Your task to perform on an android device: Open sound settings Image 0: 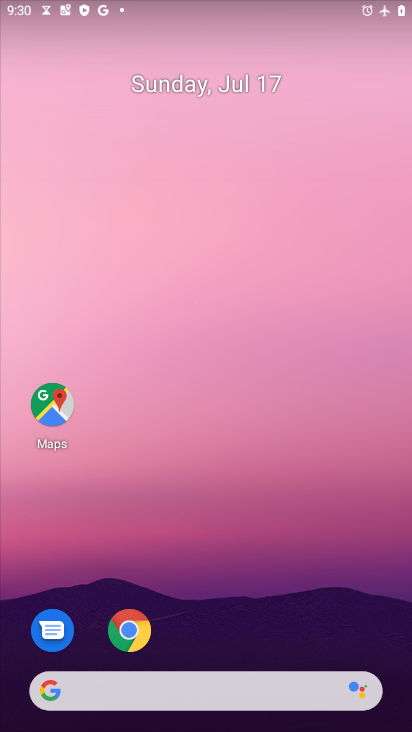
Step 0: drag from (186, 616) to (218, 62)
Your task to perform on an android device: Open sound settings Image 1: 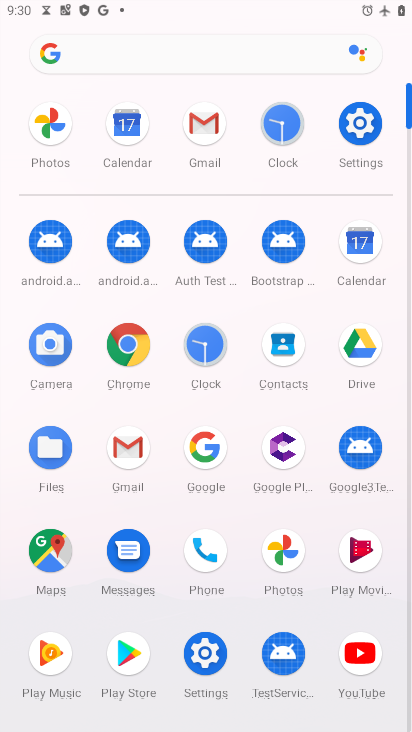
Step 1: click (357, 128)
Your task to perform on an android device: Open sound settings Image 2: 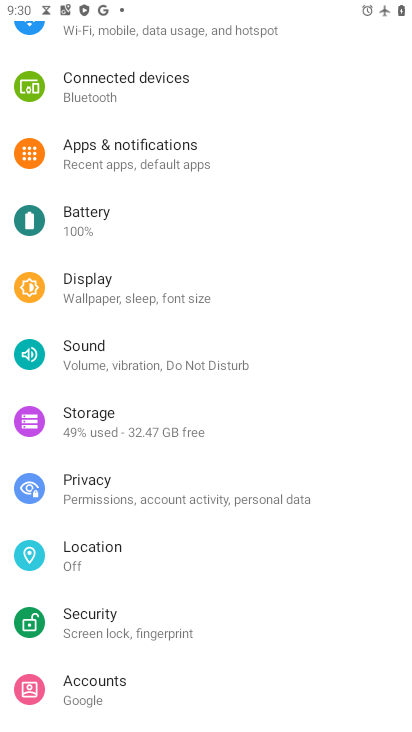
Step 2: click (66, 353)
Your task to perform on an android device: Open sound settings Image 3: 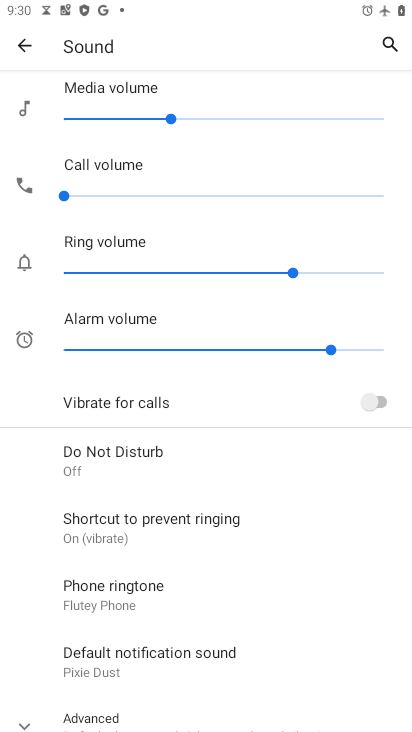
Step 3: task complete